Your task to perform on an android device: Search for macbook pro on amazon, select the first entry, and add it to the cart. Image 0: 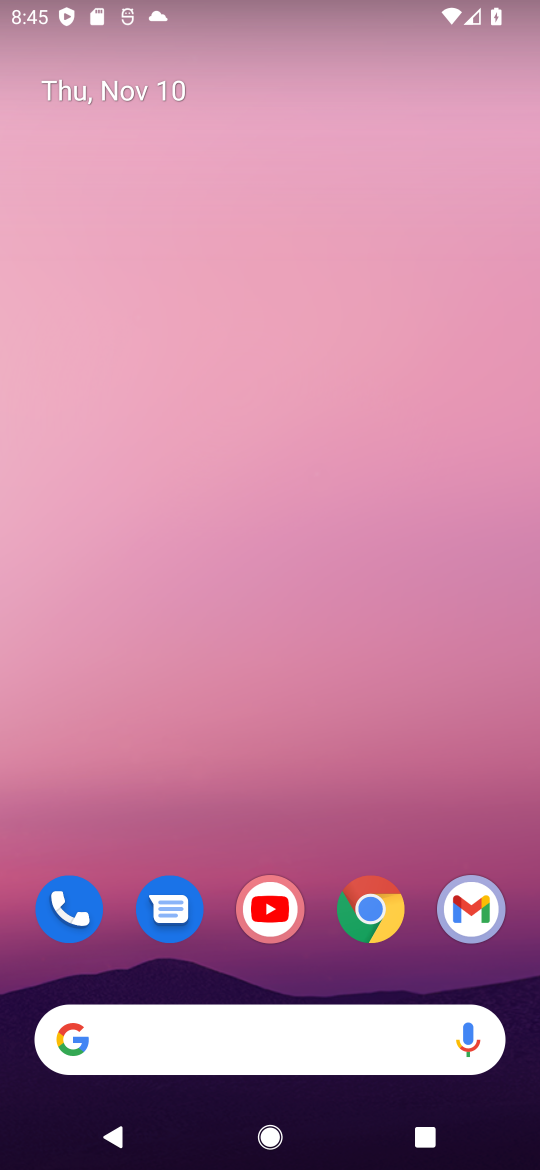
Step 0: drag from (132, 944) to (172, 497)
Your task to perform on an android device: Search for macbook pro on amazon, select the first entry, and add it to the cart. Image 1: 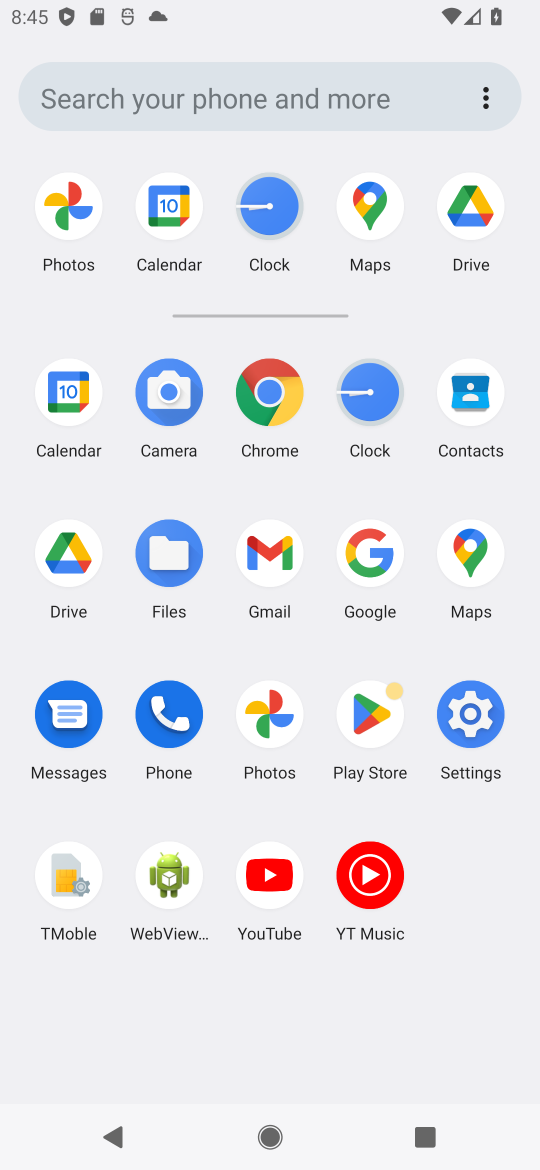
Step 1: click (346, 522)
Your task to perform on an android device: Search for macbook pro on amazon, select the first entry, and add it to the cart. Image 2: 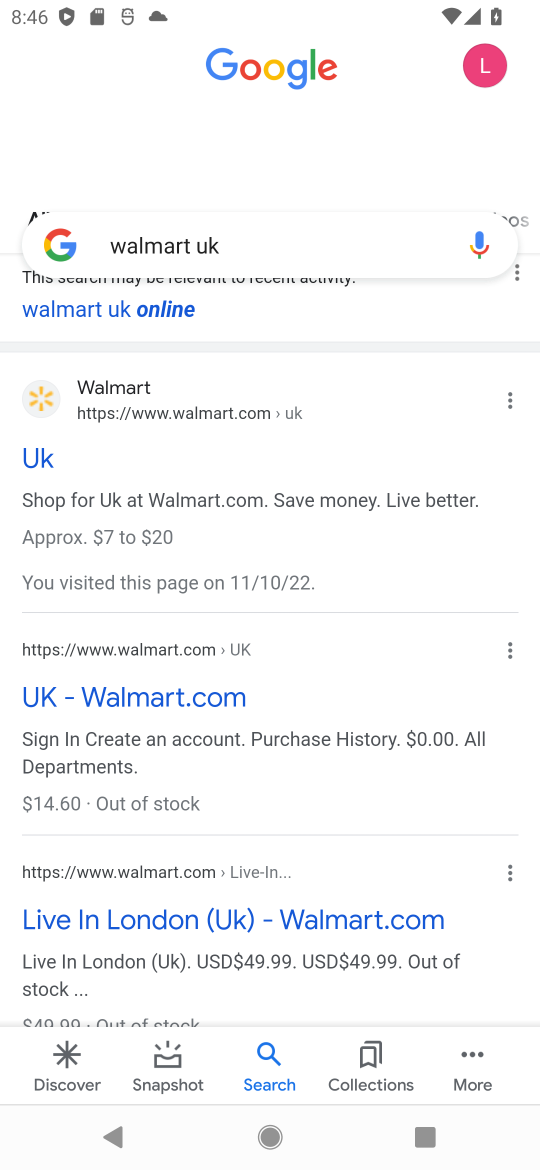
Step 2: click (308, 227)
Your task to perform on an android device: Search for macbook pro on amazon, select the first entry, and add it to the cart. Image 3: 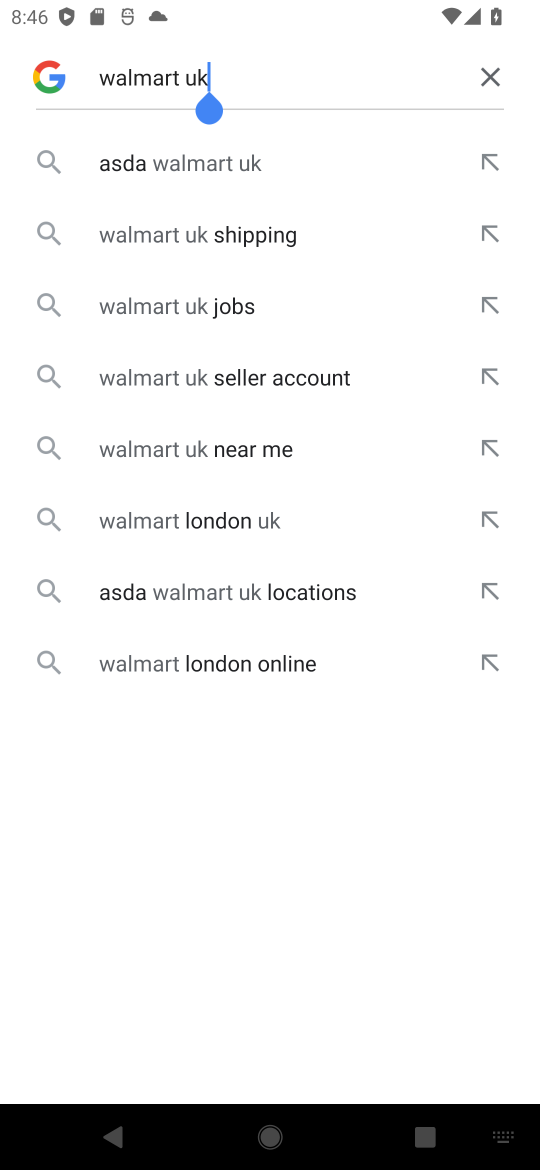
Step 3: click (491, 71)
Your task to perform on an android device: Search for macbook pro on amazon, select the first entry, and add it to the cart. Image 4: 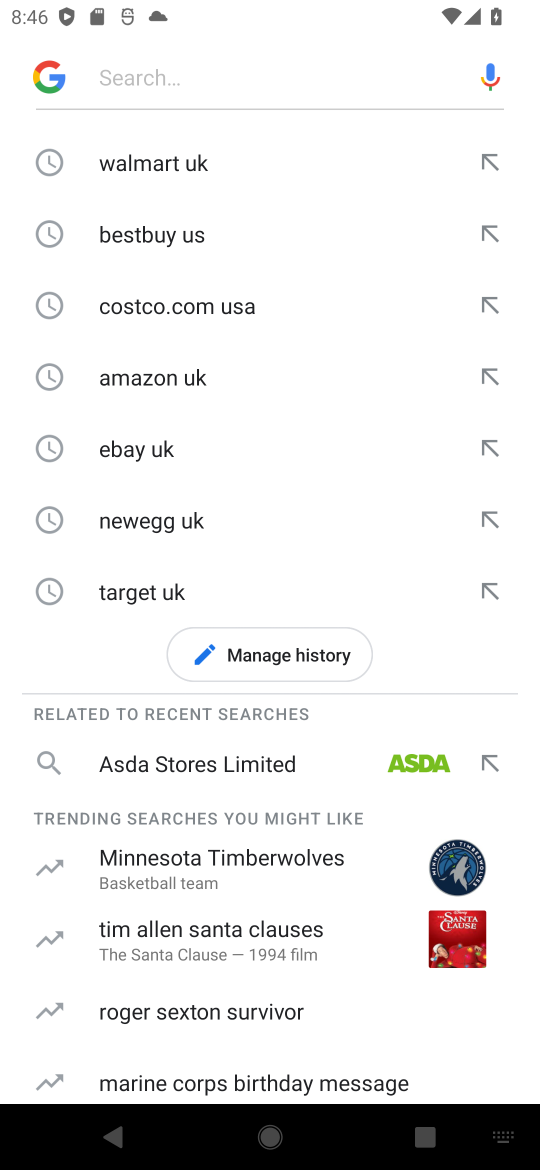
Step 4: click (154, 367)
Your task to perform on an android device: Search for macbook pro on amazon, select the first entry, and add it to the cart. Image 5: 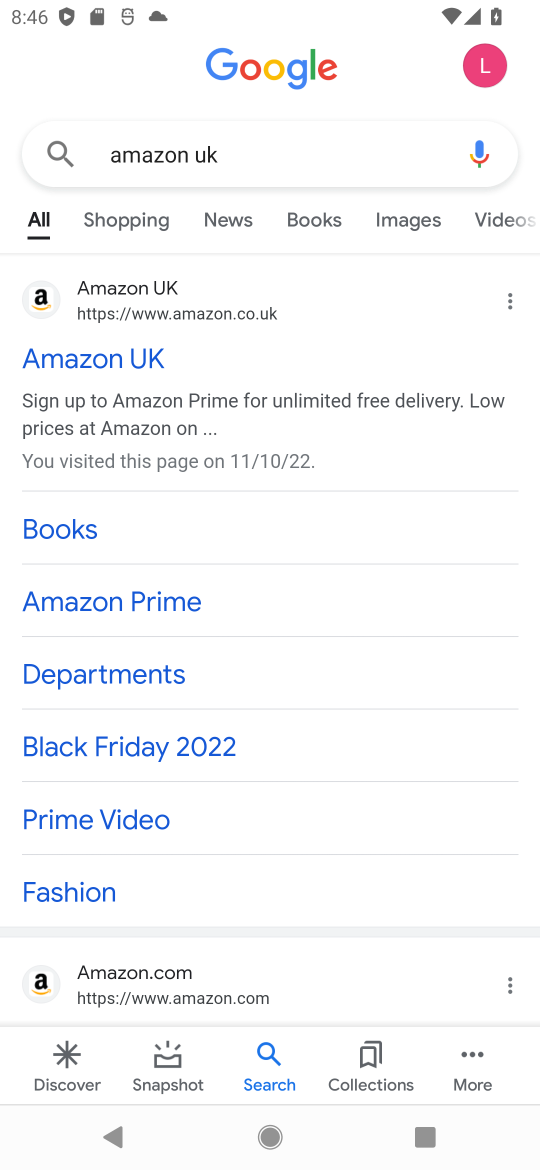
Step 5: click (43, 289)
Your task to perform on an android device: Search for macbook pro on amazon, select the first entry, and add it to the cart. Image 6: 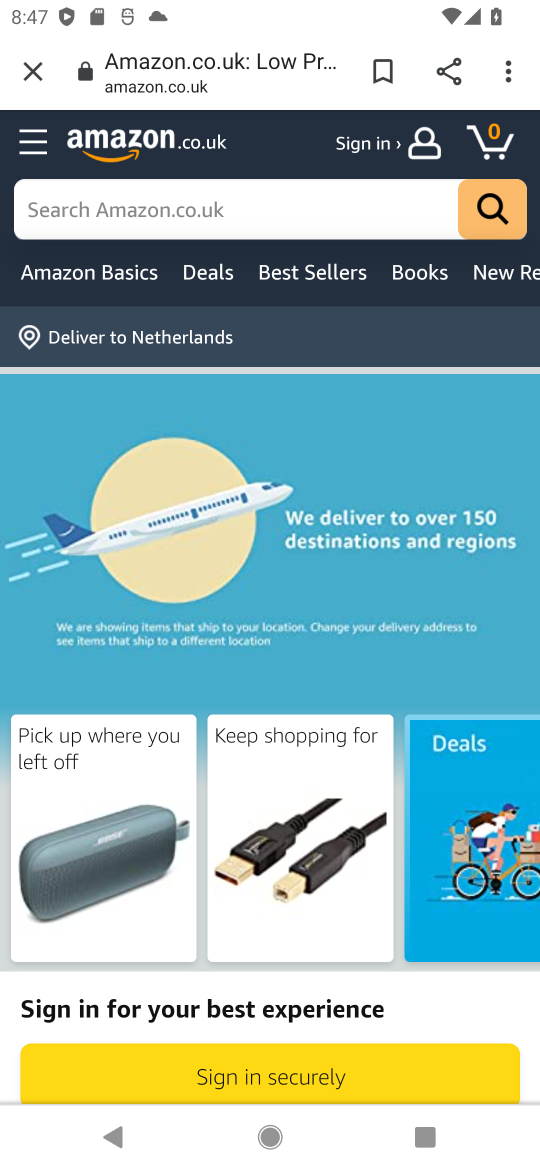
Step 6: click (158, 193)
Your task to perform on an android device: Search for macbook pro on amazon, select the first entry, and add it to the cart. Image 7: 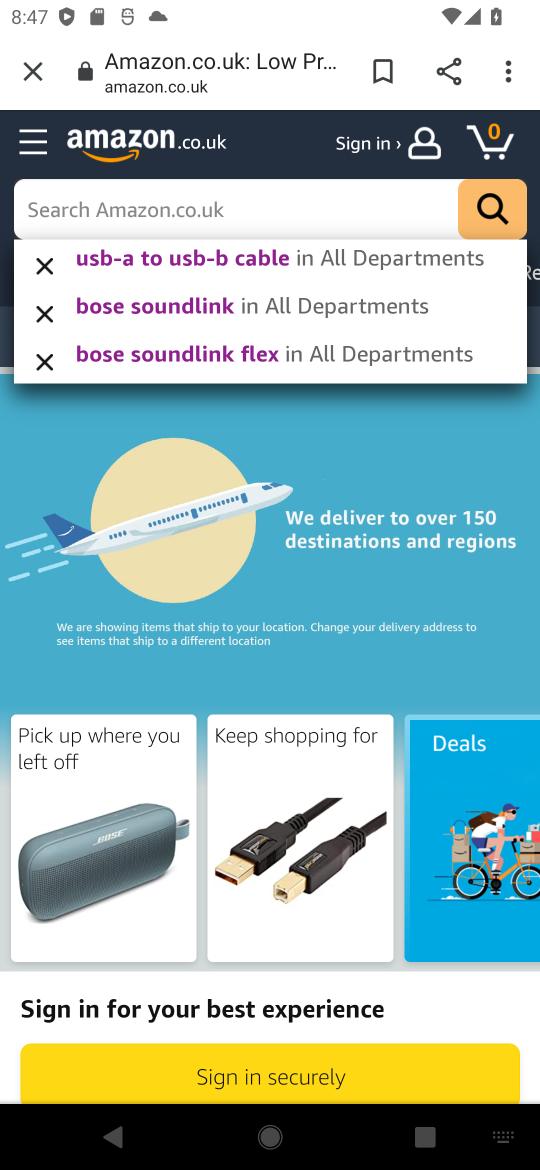
Step 7: click (188, 197)
Your task to perform on an android device: Search for macbook pro on amazon, select the first entry, and add it to the cart. Image 8: 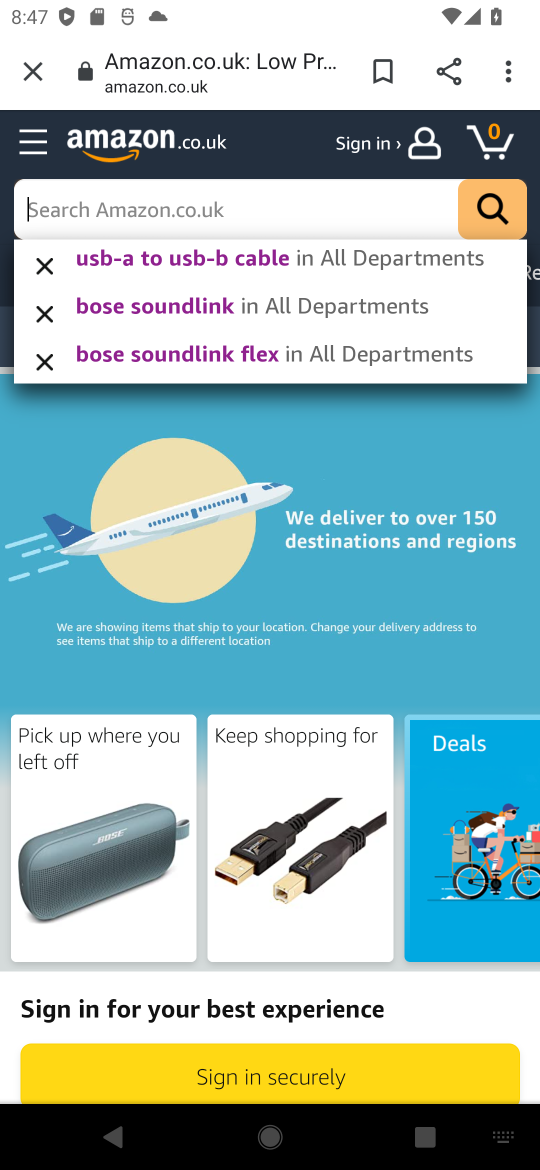
Step 8: type " macbook pro "
Your task to perform on an android device: Search for macbook pro on amazon, select the first entry, and add it to the cart. Image 9: 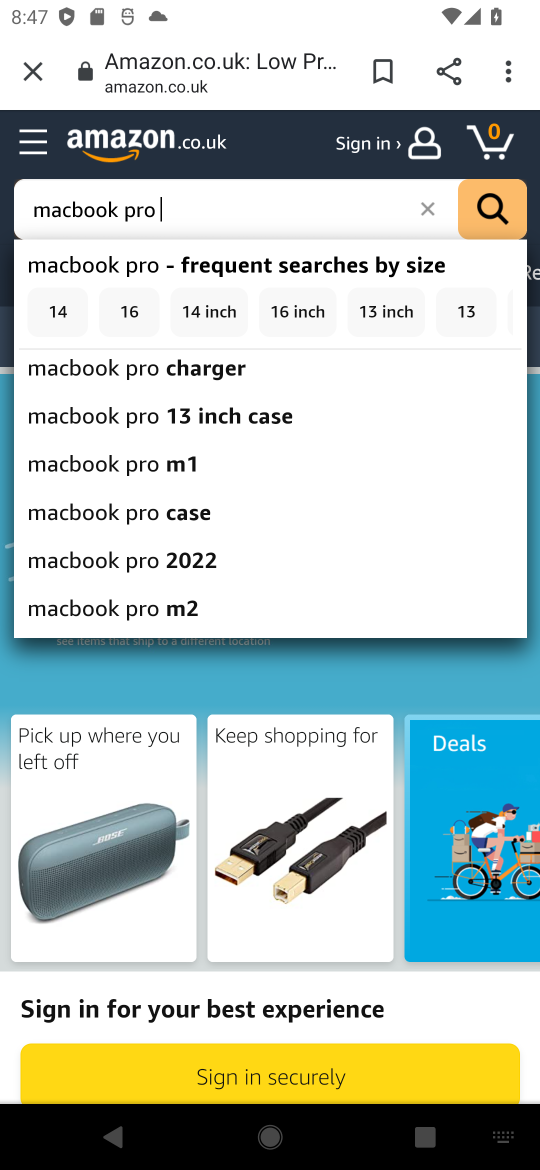
Step 9: click (487, 204)
Your task to perform on an android device: Search for macbook pro on amazon, select the first entry, and add it to the cart. Image 10: 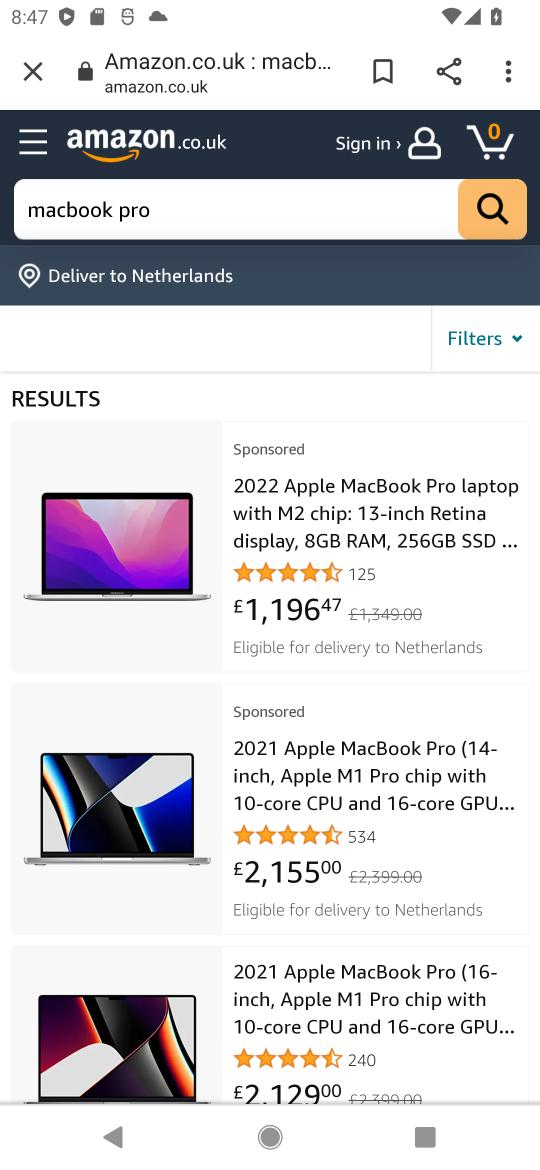
Step 10: click (385, 491)
Your task to perform on an android device: Search for macbook pro on amazon, select the first entry, and add it to the cart. Image 11: 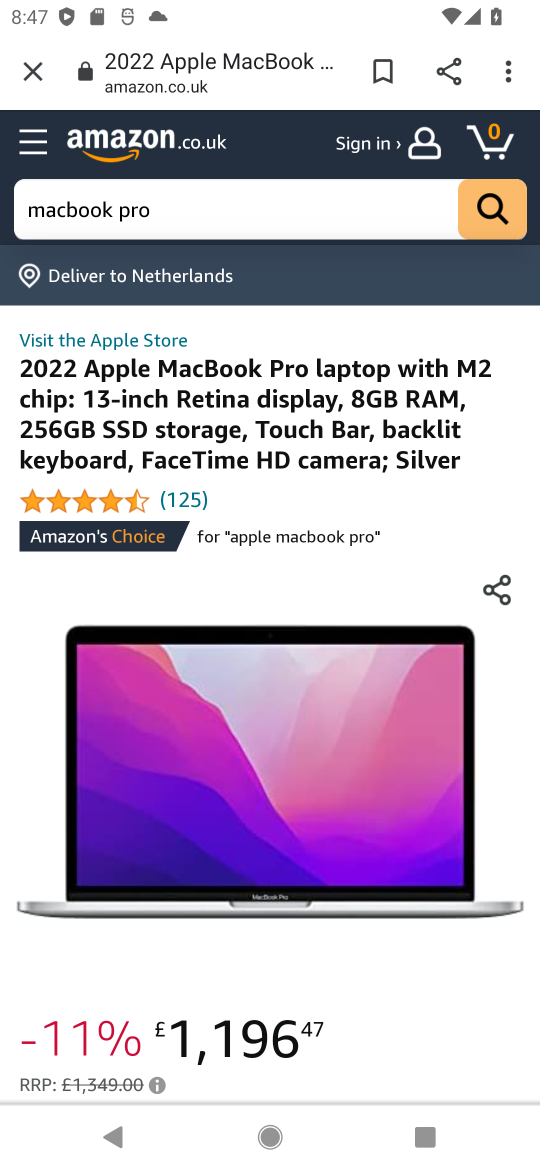
Step 11: drag from (241, 1017) to (360, 262)
Your task to perform on an android device: Search for macbook pro on amazon, select the first entry, and add it to the cart. Image 12: 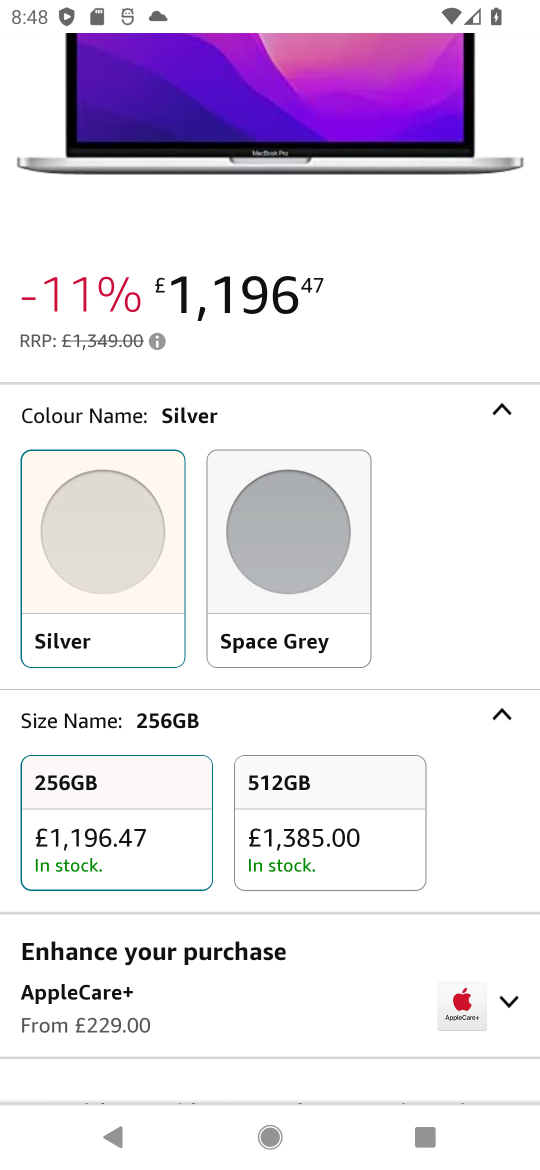
Step 12: click (385, 399)
Your task to perform on an android device: Search for macbook pro on amazon, select the first entry, and add it to the cart. Image 13: 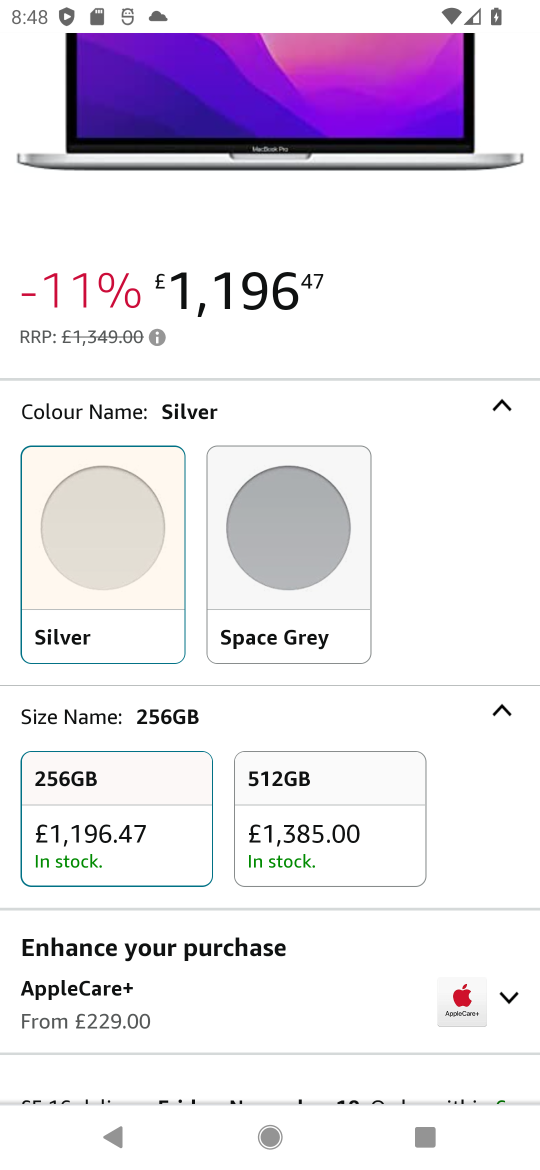
Step 13: drag from (263, 695) to (330, 212)
Your task to perform on an android device: Search for macbook pro on amazon, select the first entry, and add it to the cart. Image 14: 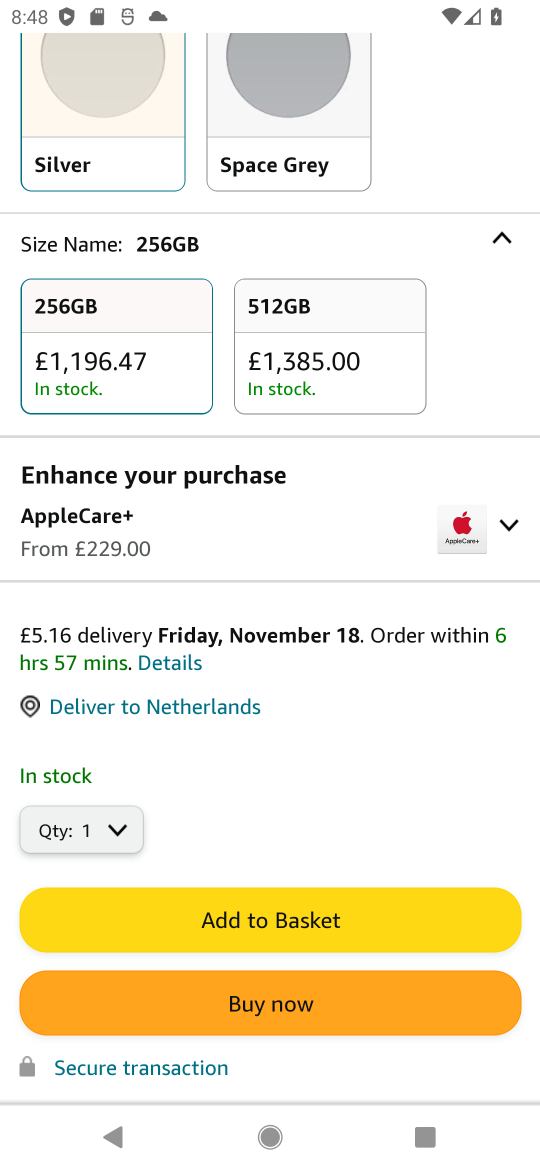
Step 14: click (285, 927)
Your task to perform on an android device: Search for macbook pro on amazon, select the first entry, and add it to the cart. Image 15: 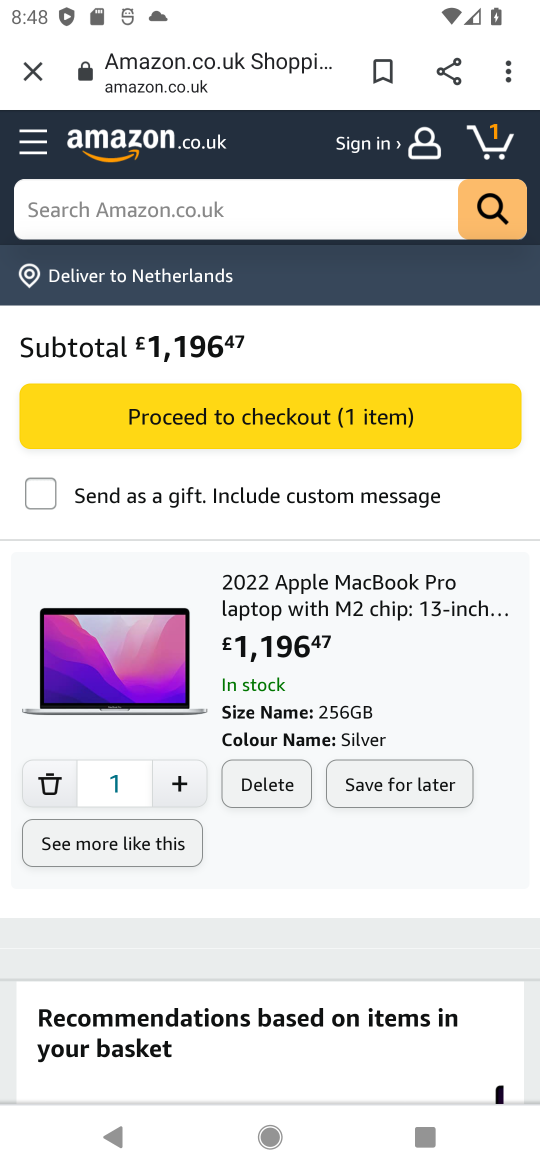
Step 15: task complete